Your task to perform on an android device: turn off javascript in the chrome app Image 0: 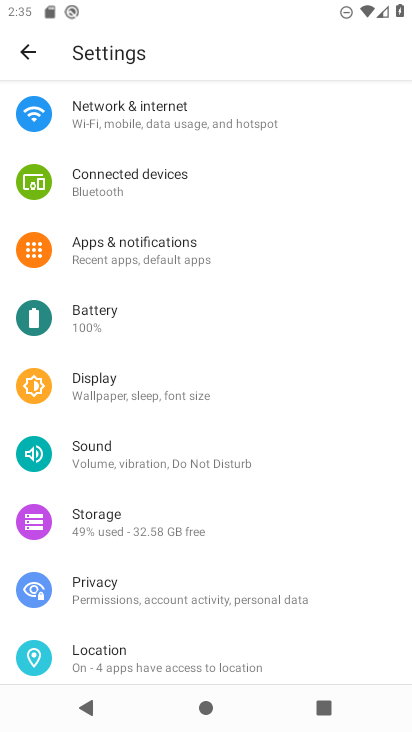
Step 0: press home button
Your task to perform on an android device: turn off javascript in the chrome app Image 1: 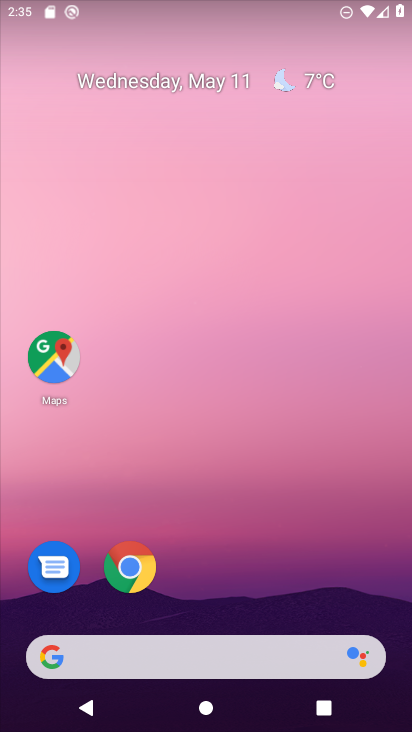
Step 1: click (138, 571)
Your task to perform on an android device: turn off javascript in the chrome app Image 2: 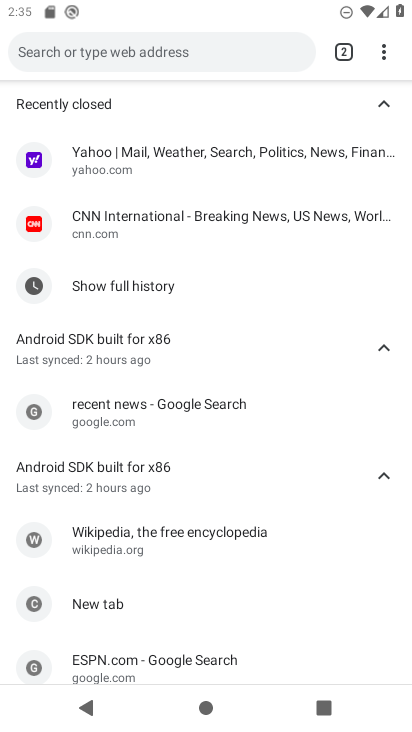
Step 2: click (388, 44)
Your task to perform on an android device: turn off javascript in the chrome app Image 3: 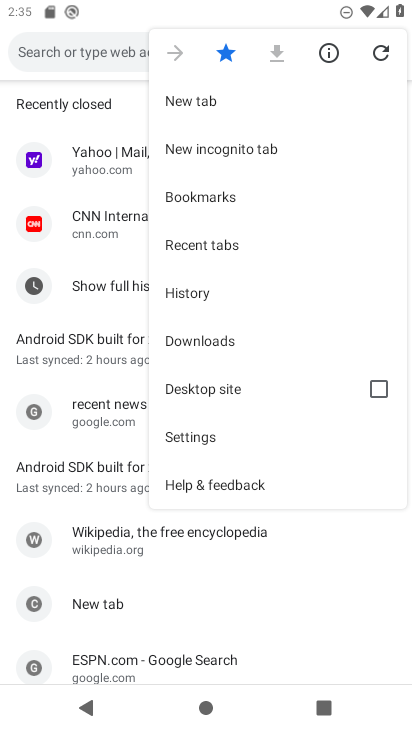
Step 3: click (213, 432)
Your task to perform on an android device: turn off javascript in the chrome app Image 4: 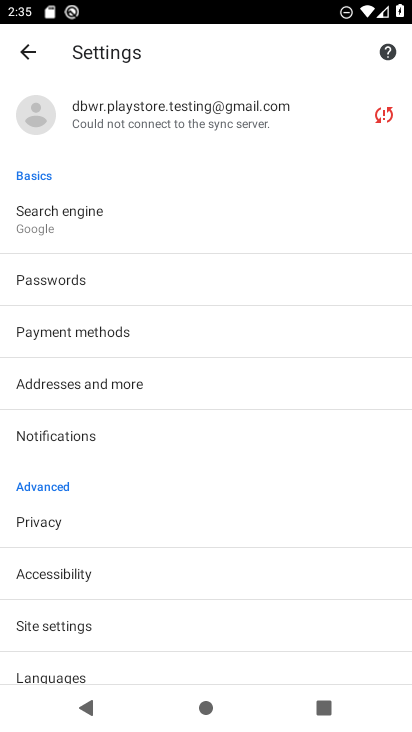
Step 4: drag from (233, 595) to (186, 375)
Your task to perform on an android device: turn off javascript in the chrome app Image 5: 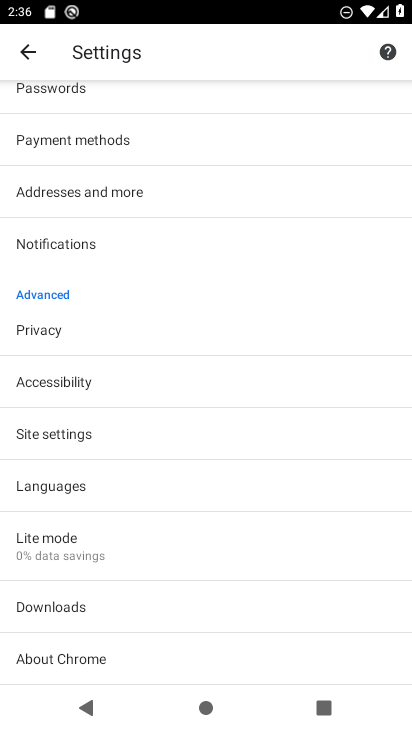
Step 5: click (92, 440)
Your task to perform on an android device: turn off javascript in the chrome app Image 6: 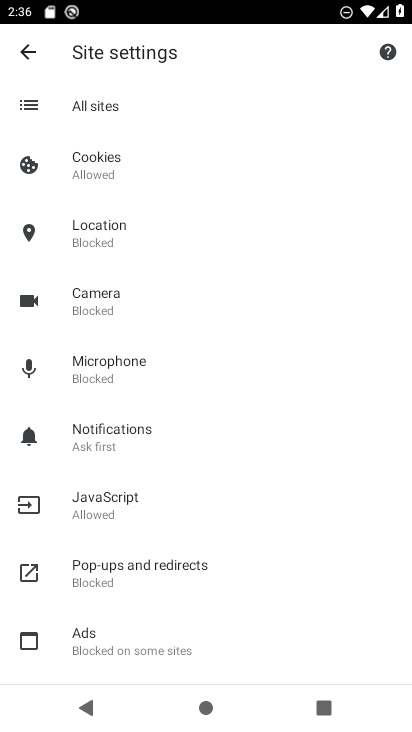
Step 6: click (134, 503)
Your task to perform on an android device: turn off javascript in the chrome app Image 7: 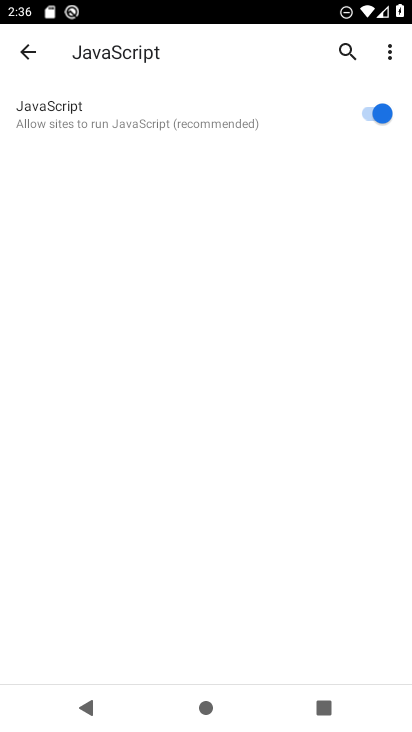
Step 7: click (374, 117)
Your task to perform on an android device: turn off javascript in the chrome app Image 8: 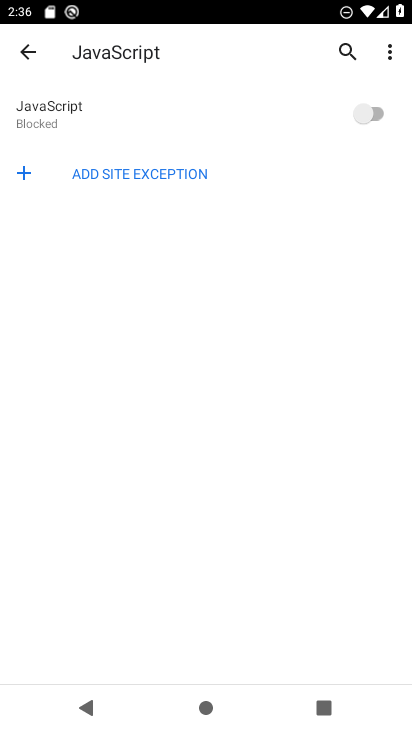
Step 8: task complete